Your task to perform on an android device: toggle sleep mode Image 0: 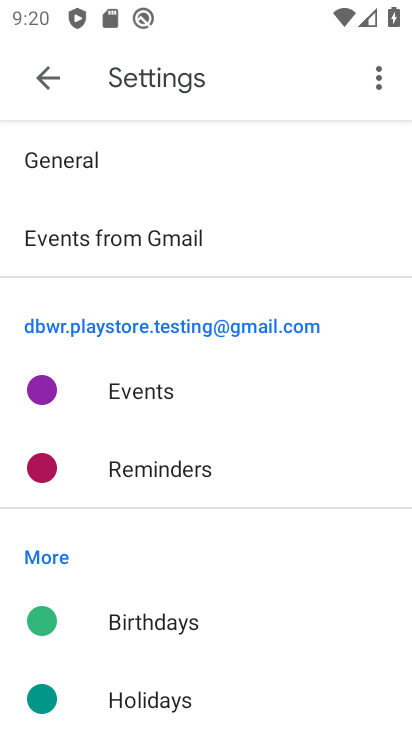
Step 0: press home button
Your task to perform on an android device: toggle sleep mode Image 1: 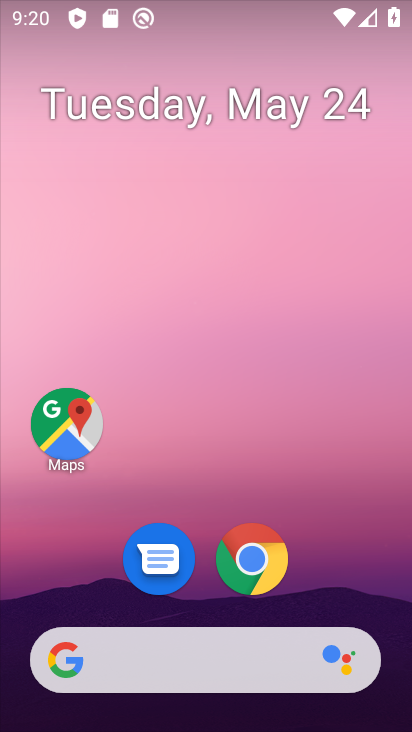
Step 1: drag from (327, 538) to (311, 455)
Your task to perform on an android device: toggle sleep mode Image 2: 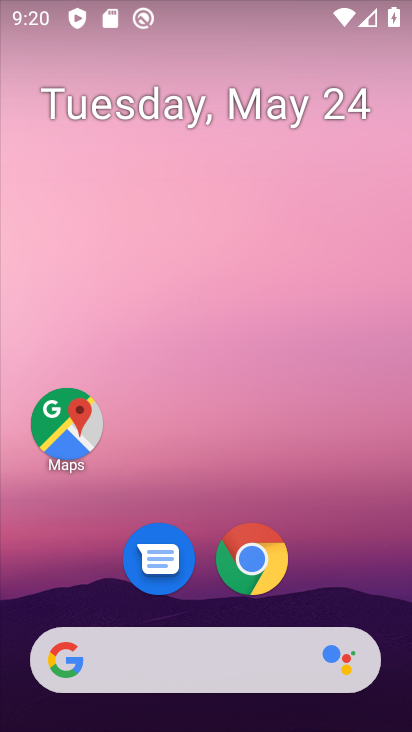
Step 2: drag from (320, 594) to (213, 137)
Your task to perform on an android device: toggle sleep mode Image 3: 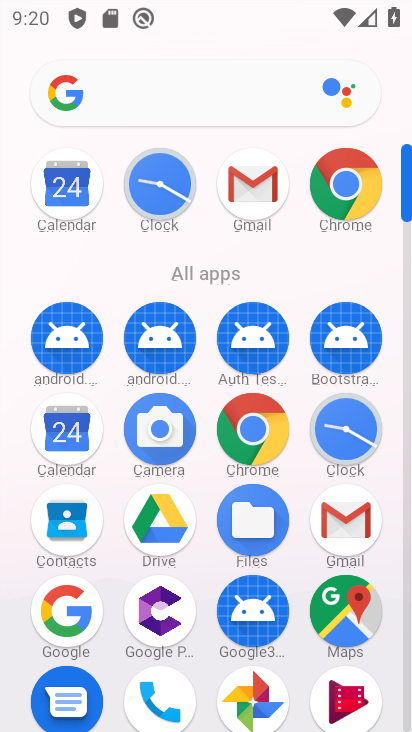
Step 3: drag from (95, 486) to (96, 424)
Your task to perform on an android device: toggle sleep mode Image 4: 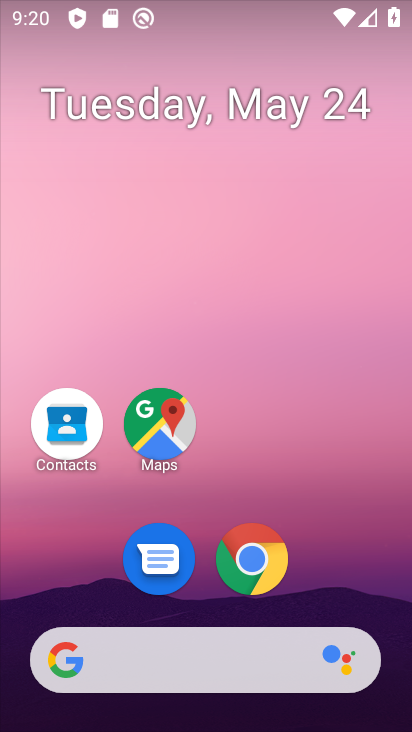
Step 4: click (372, 500)
Your task to perform on an android device: toggle sleep mode Image 5: 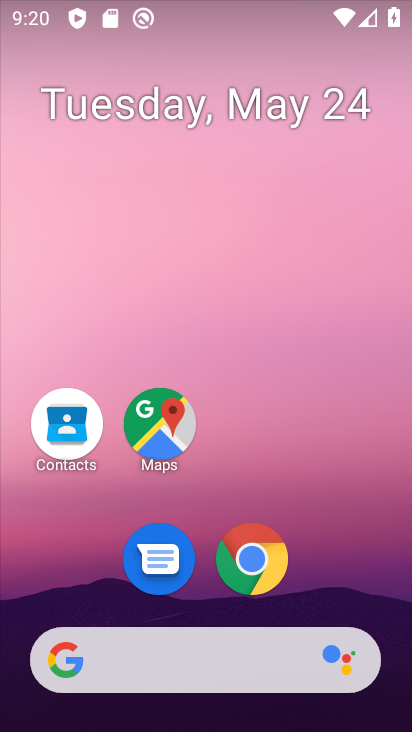
Step 5: drag from (372, 500) to (335, 111)
Your task to perform on an android device: toggle sleep mode Image 6: 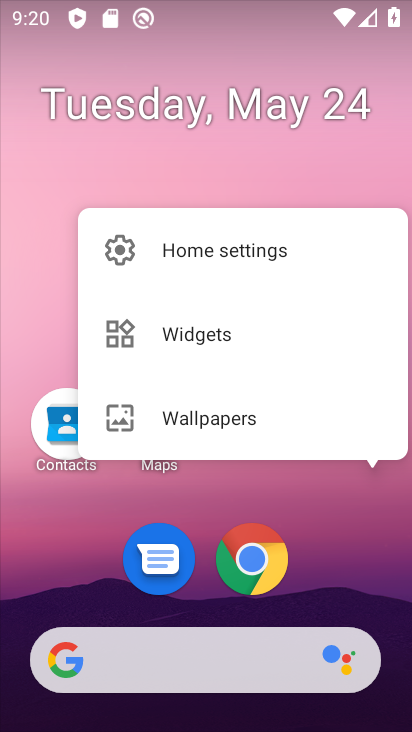
Step 6: click (349, 538)
Your task to perform on an android device: toggle sleep mode Image 7: 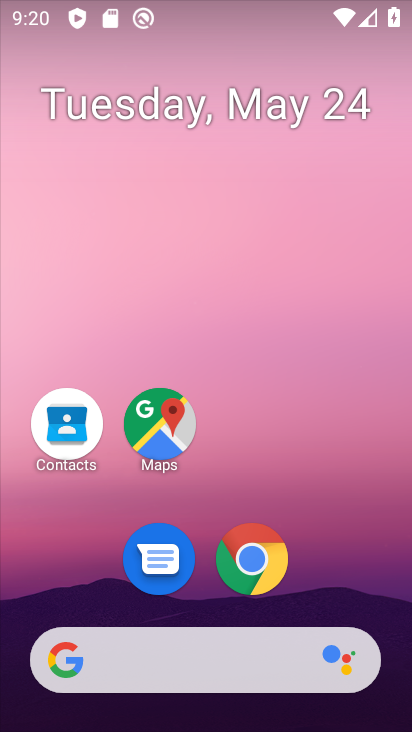
Step 7: task complete